Your task to perform on an android device: Go to sound settings Image 0: 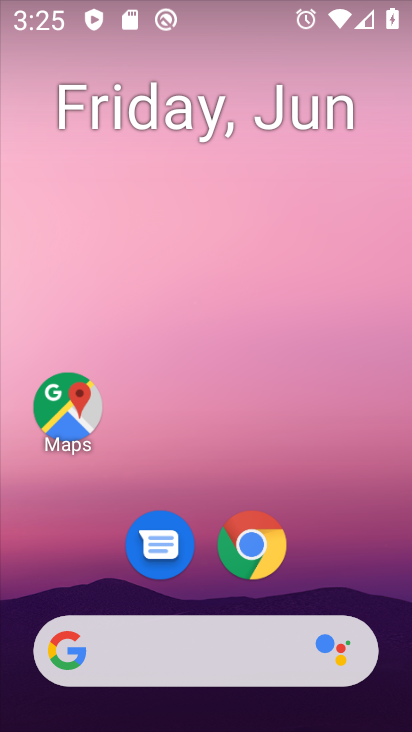
Step 0: drag from (373, 482) to (407, 35)
Your task to perform on an android device: Go to sound settings Image 1: 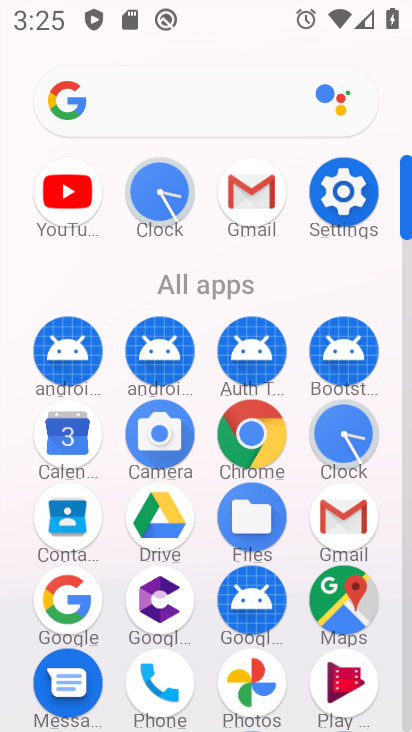
Step 1: click (346, 184)
Your task to perform on an android device: Go to sound settings Image 2: 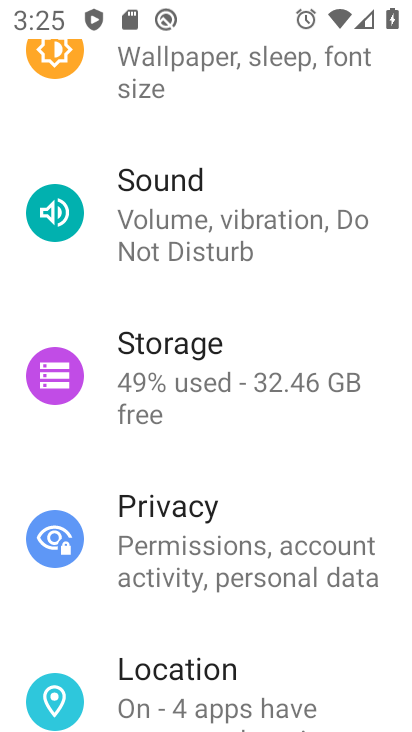
Step 2: drag from (279, 296) to (252, 507)
Your task to perform on an android device: Go to sound settings Image 3: 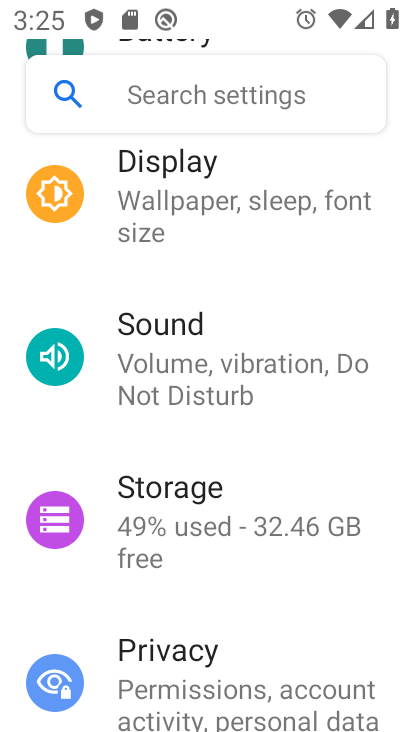
Step 3: click (165, 375)
Your task to perform on an android device: Go to sound settings Image 4: 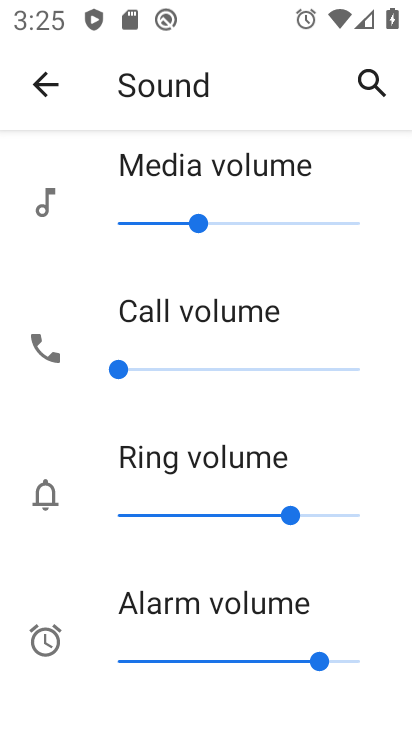
Step 4: task complete